Your task to perform on an android device: Open accessibility settings Image 0: 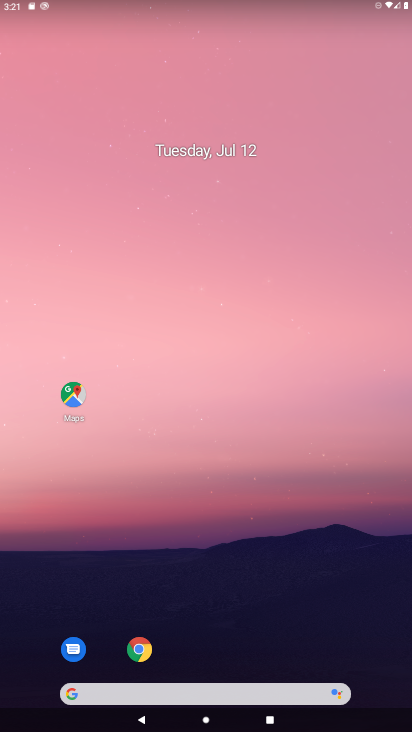
Step 0: drag from (290, 625) to (283, 87)
Your task to perform on an android device: Open accessibility settings Image 1: 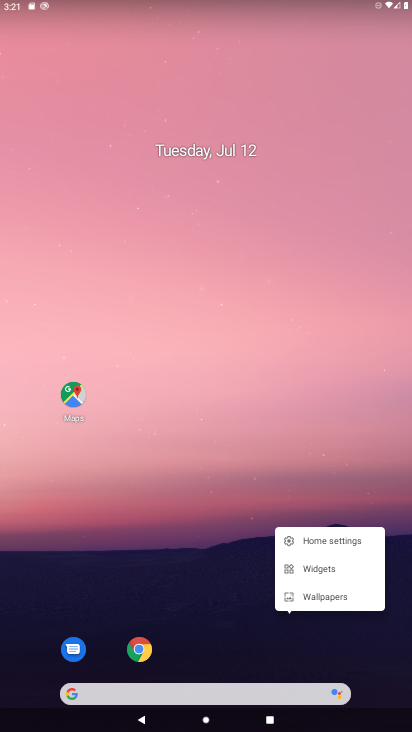
Step 1: click (239, 348)
Your task to perform on an android device: Open accessibility settings Image 2: 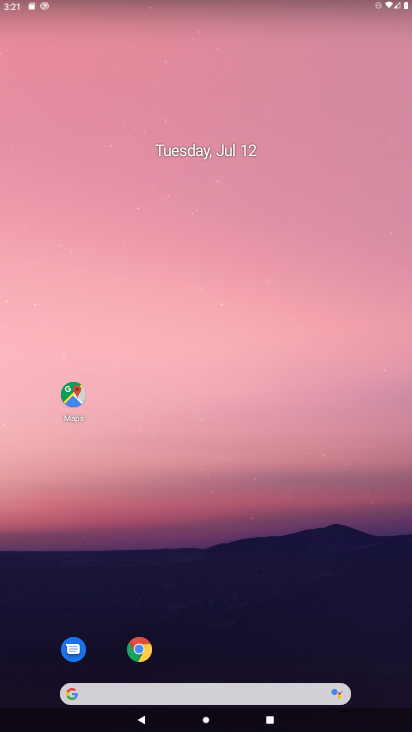
Step 2: drag from (221, 628) to (158, 89)
Your task to perform on an android device: Open accessibility settings Image 3: 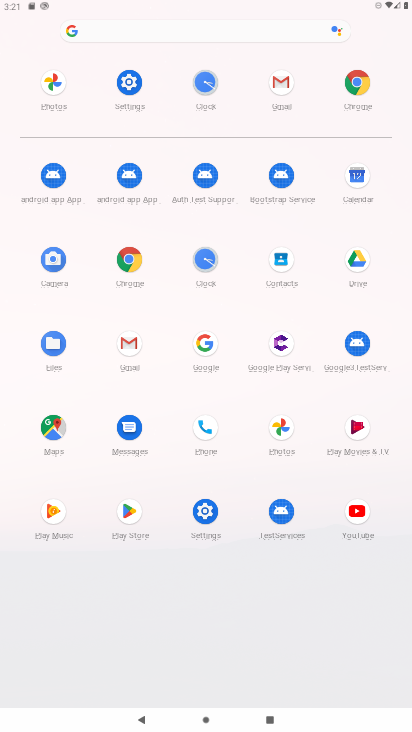
Step 3: click (134, 89)
Your task to perform on an android device: Open accessibility settings Image 4: 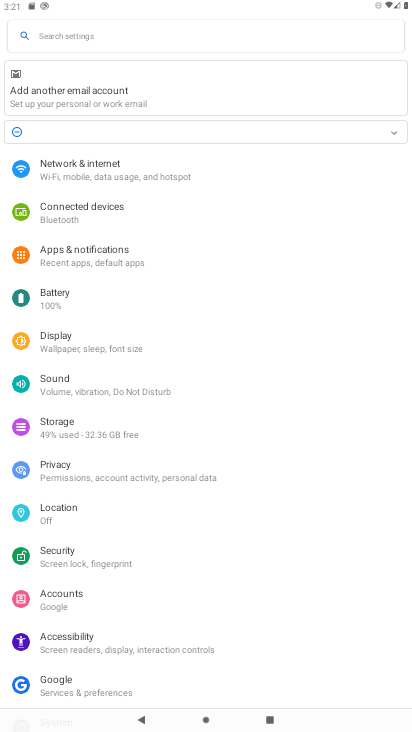
Step 4: click (171, 648)
Your task to perform on an android device: Open accessibility settings Image 5: 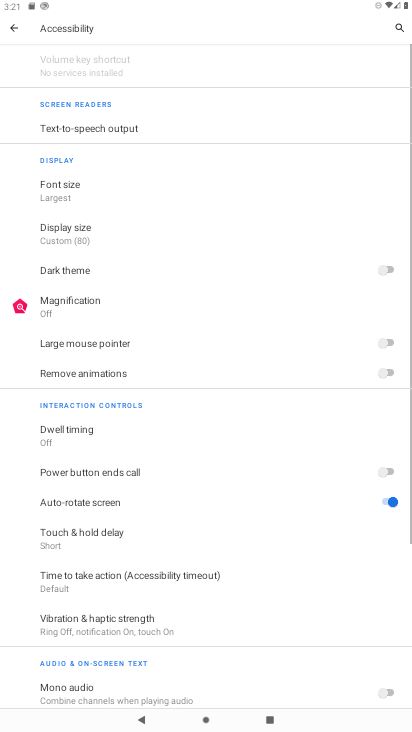
Step 5: task complete